Your task to perform on an android device: Go to Google Image 0: 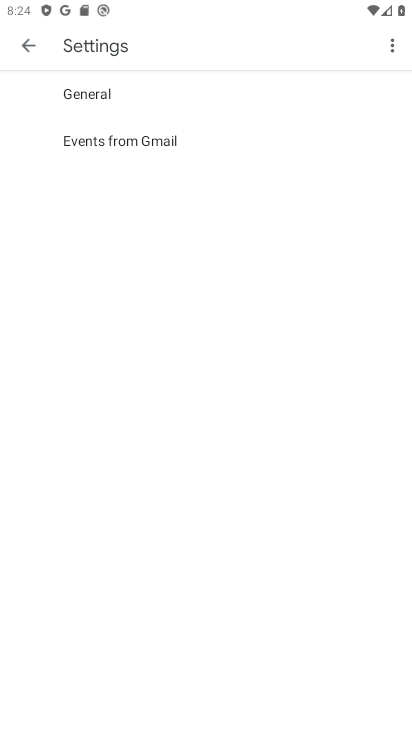
Step 0: press home button
Your task to perform on an android device: Go to Google Image 1: 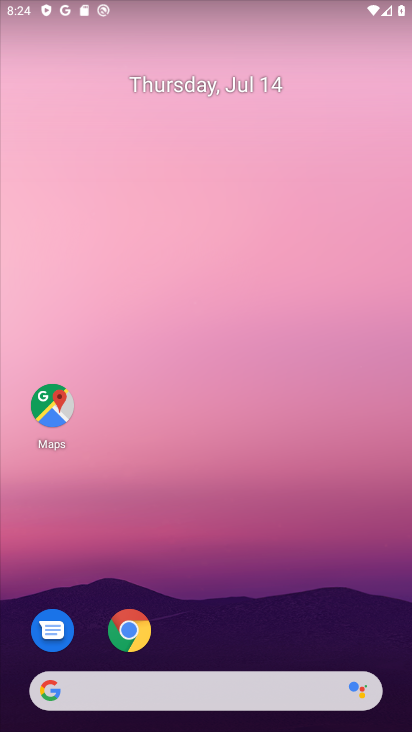
Step 1: drag from (318, 627) to (232, 188)
Your task to perform on an android device: Go to Google Image 2: 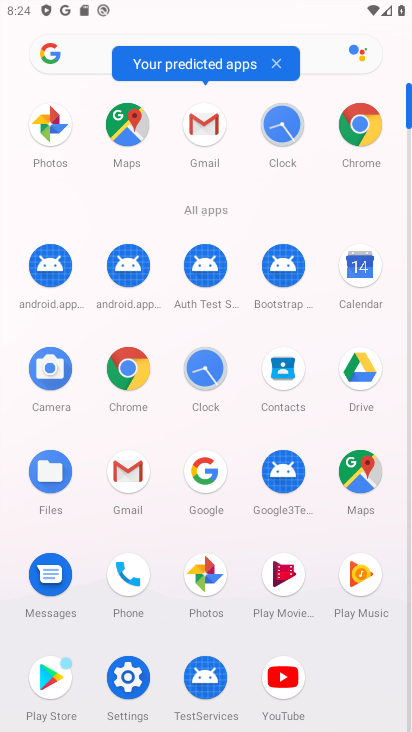
Step 2: click (351, 136)
Your task to perform on an android device: Go to Google Image 3: 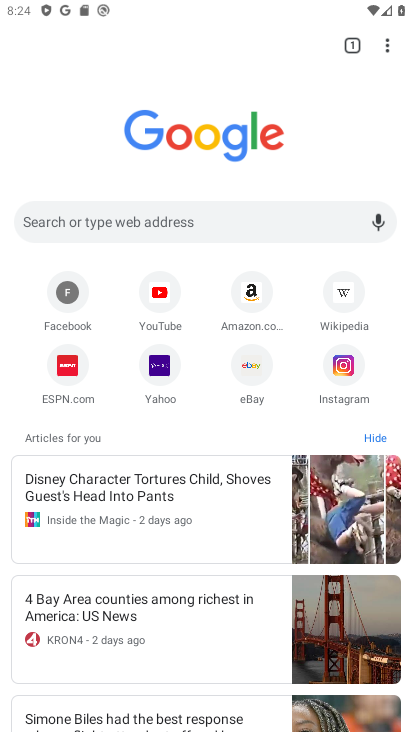
Step 3: task complete